Your task to perform on an android device: delete the emails in spam in the gmail app Image 0: 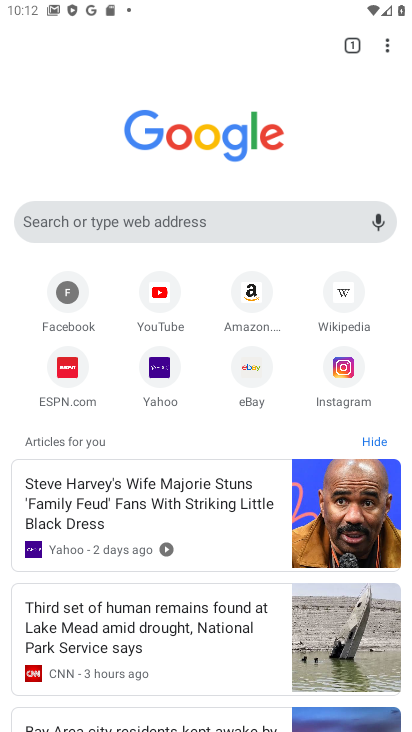
Step 0: press home button
Your task to perform on an android device: delete the emails in spam in the gmail app Image 1: 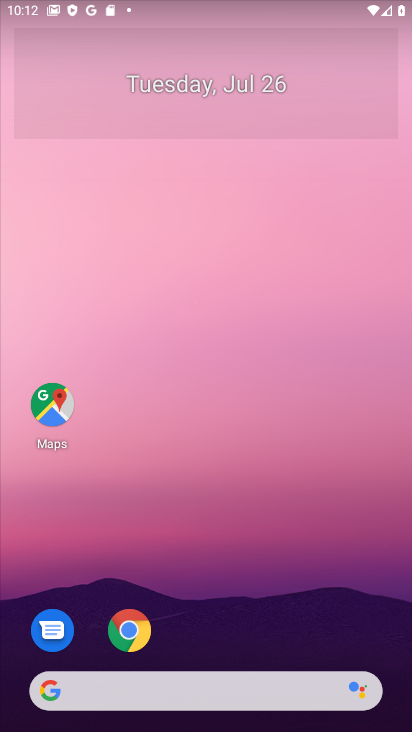
Step 1: drag from (151, 639) to (141, 2)
Your task to perform on an android device: delete the emails in spam in the gmail app Image 2: 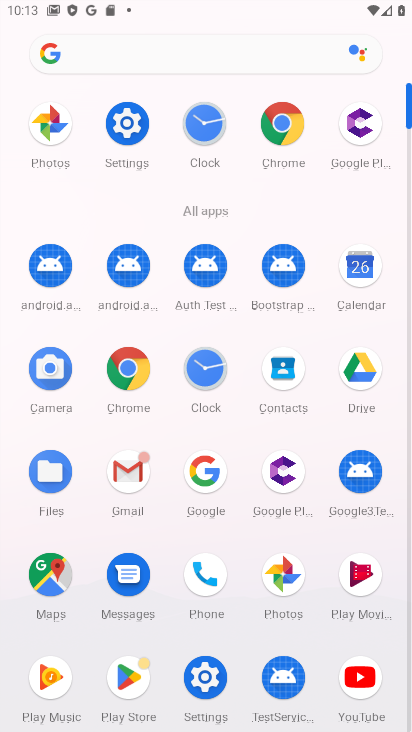
Step 2: click (128, 463)
Your task to perform on an android device: delete the emails in spam in the gmail app Image 3: 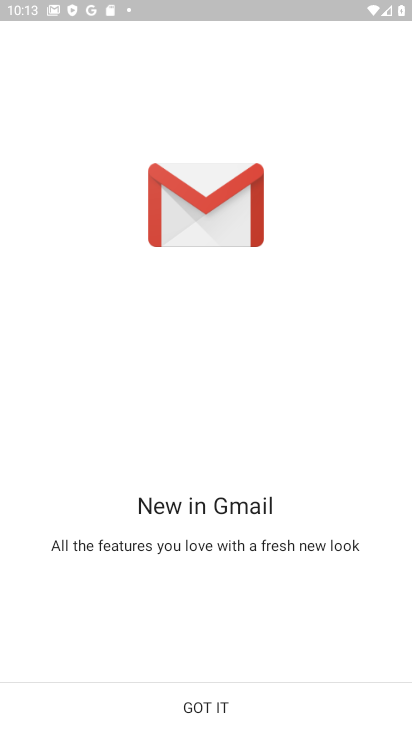
Step 3: click (277, 718)
Your task to perform on an android device: delete the emails in spam in the gmail app Image 4: 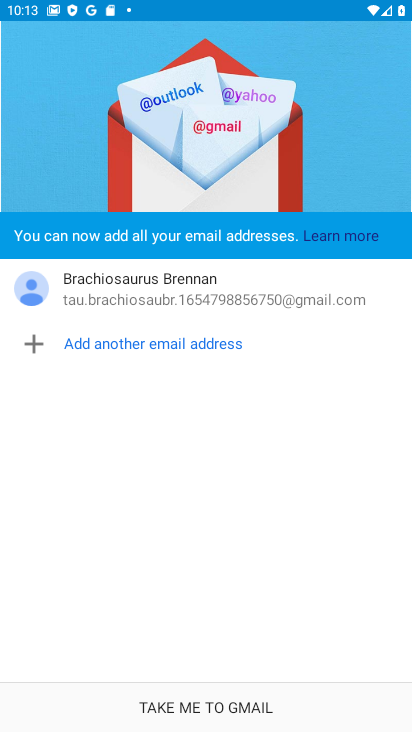
Step 4: click (229, 712)
Your task to perform on an android device: delete the emails in spam in the gmail app Image 5: 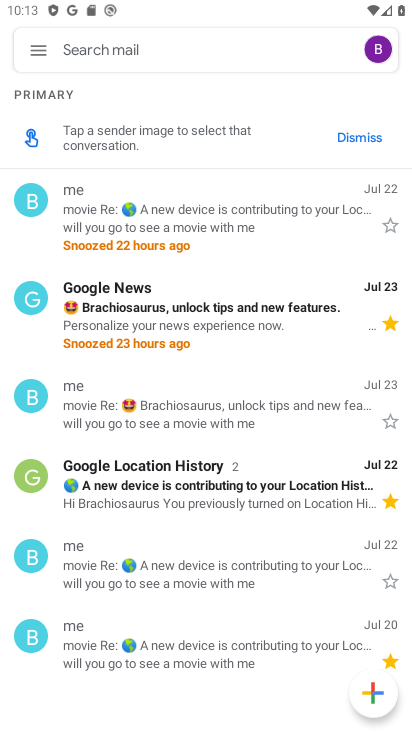
Step 5: click (184, 215)
Your task to perform on an android device: delete the emails in spam in the gmail app Image 6: 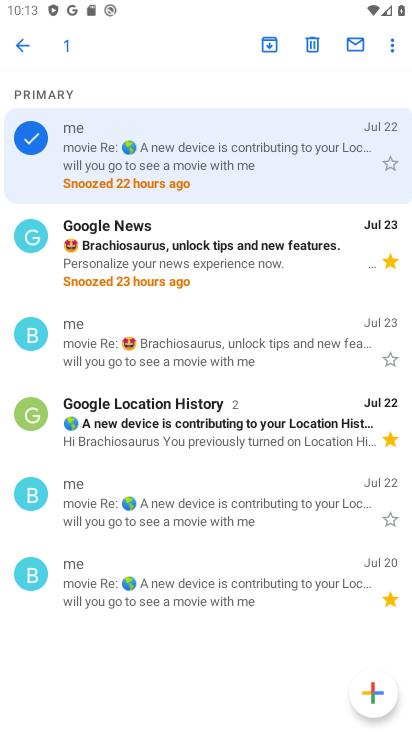
Step 6: click (310, 39)
Your task to perform on an android device: delete the emails in spam in the gmail app Image 7: 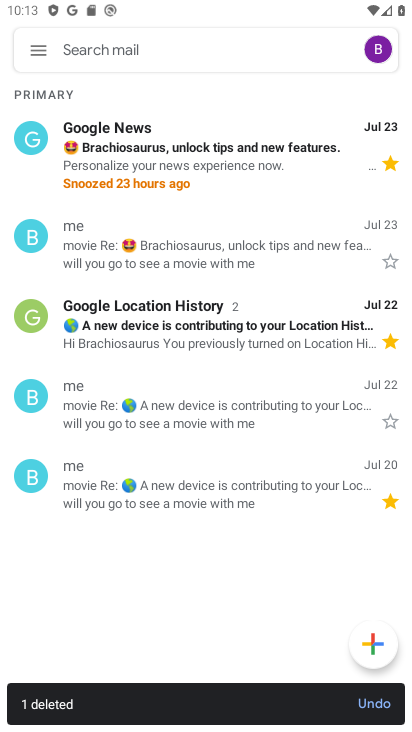
Step 7: task complete